Your task to perform on an android device: turn off priority inbox in the gmail app Image 0: 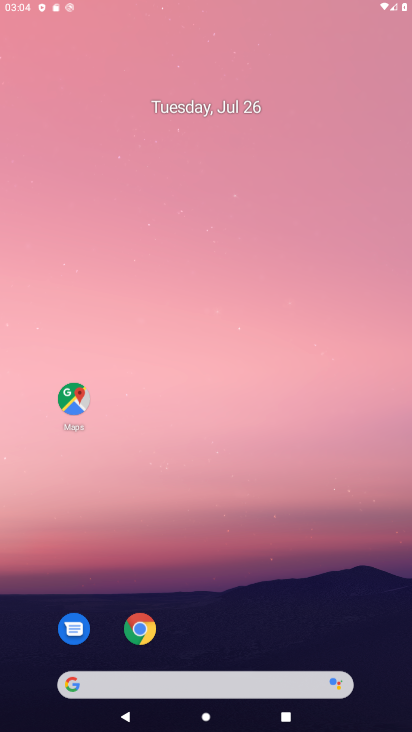
Step 0: press home button
Your task to perform on an android device: turn off priority inbox in the gmail app Image 1: 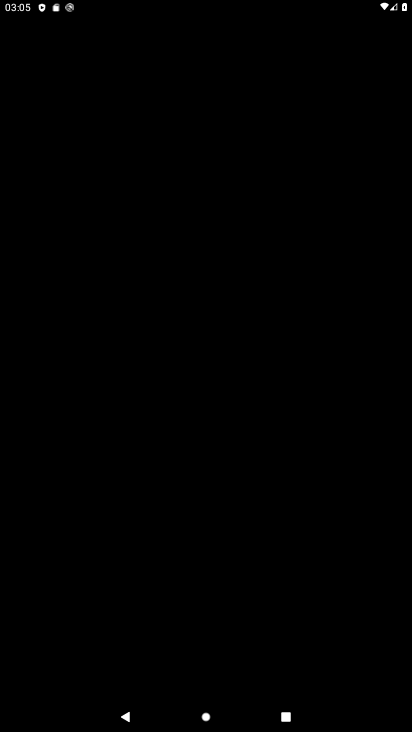
Step 1: press home button
Your task to perform on an android device: turn off priority inbox in the gmail app Image 2: 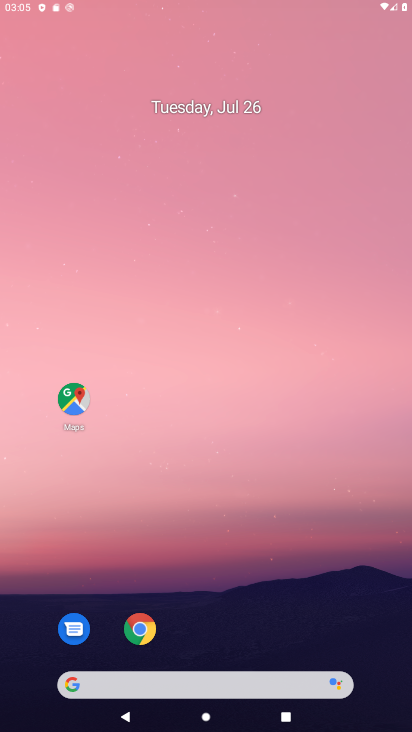
Step 2: press home button
Your task to perform on an android device: turn off priority inbox in the gmail app Image 3: 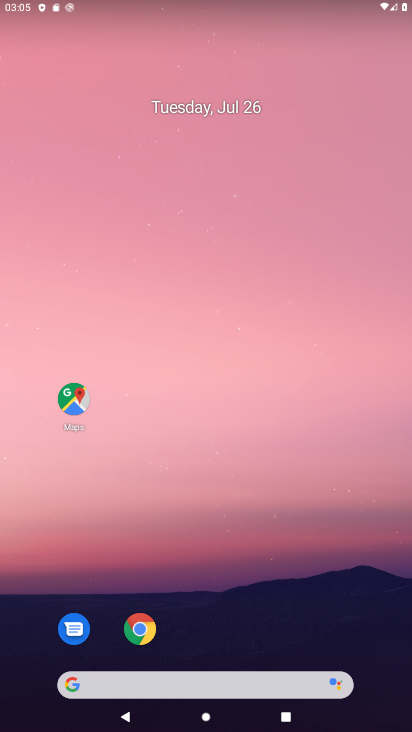
Step 3: press home button
Your task to perform on an android device: turn off priority inbox in the gmail app Image 4: 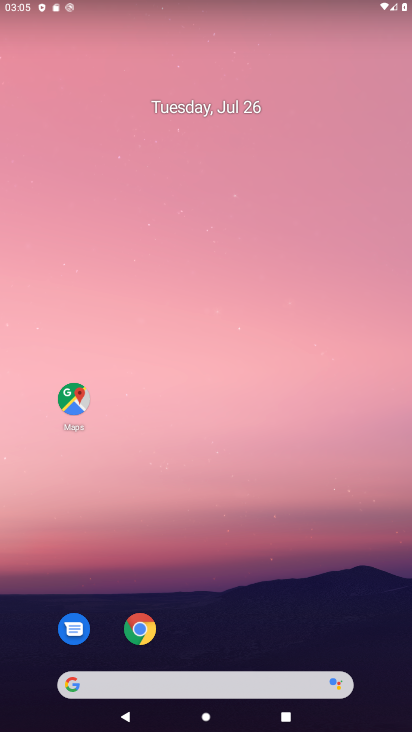
Step 4: press home button
Your task to perform on an android device: turn off priority inbox in the gmail app Image 5: 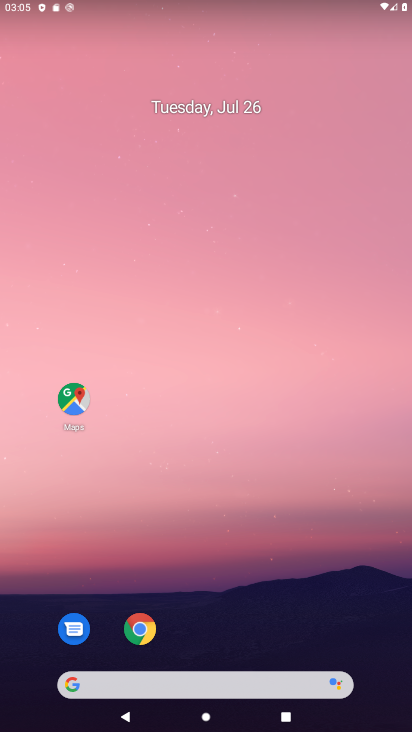
Step 5: drag from (226, 689) to (109, 26)
Your task to perform on an android device: turn off priority inbox in the gmail app Image 6: 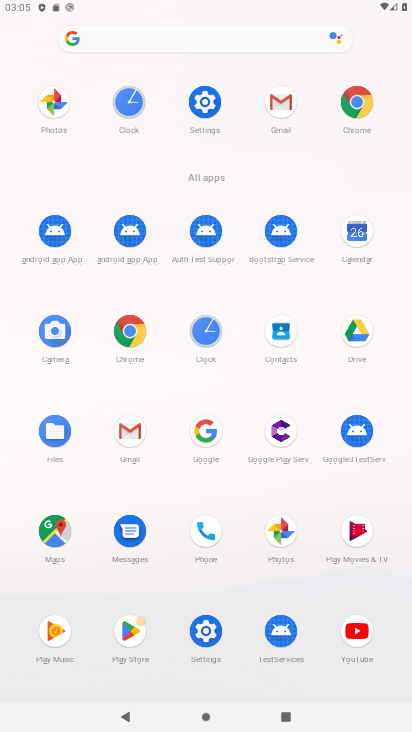
Step 6: click (266, 124)
Your task to perform on an android device: turn off priority inbox in the gmail app Image 7: 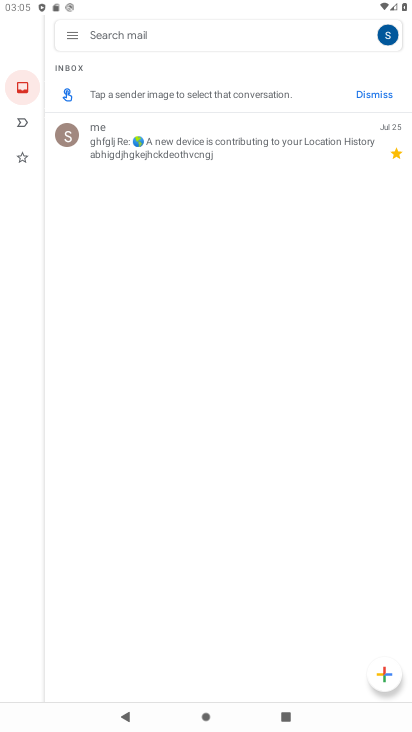
Step 7: click (67, 45)
Your task to perform on an android device: turn off priority inbox in the gmail app Image 8: 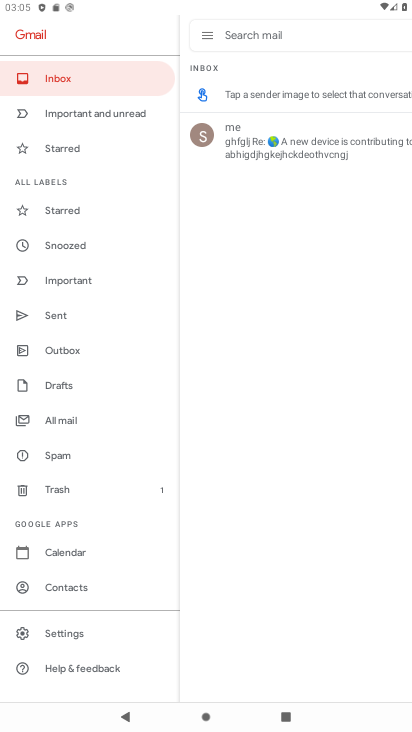
Step 8: click (65, 633)
Your task to perform on an android device: turn off priority inbox in the gmail app Image 9: 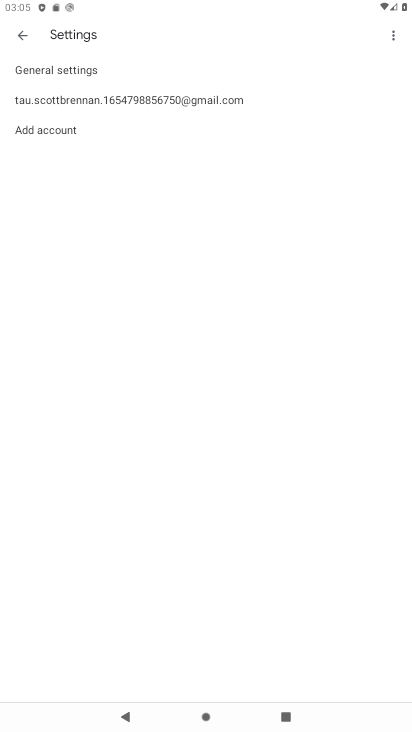
Step 9: click (49, 94)
Your task to perform on an android device: turn off priority inbox in the gmail app Image 10: 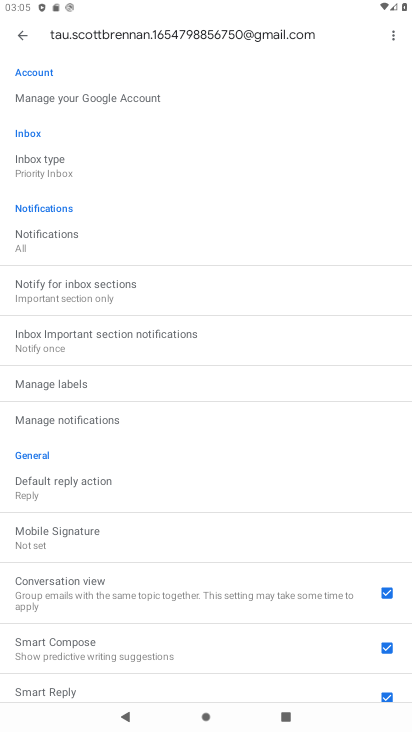
Step 10: click (37, 159)
Your task to perform on an android device: turn off priority inbox in the gmail app Image 11: 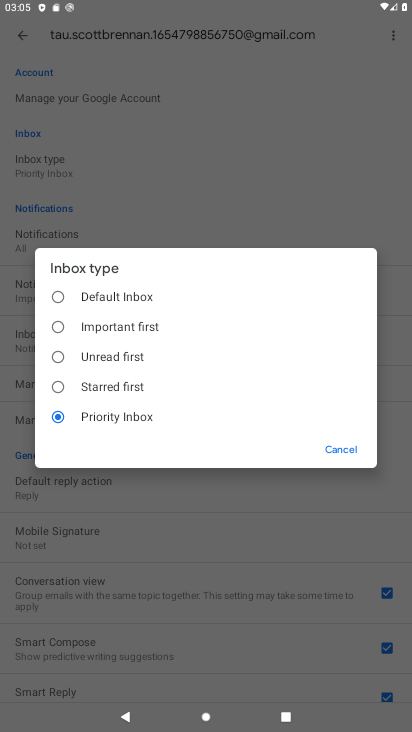
Step 11: click (79, 290)
Your task to perform on an android device: turn off priority inbox in the gmail app Image 12: 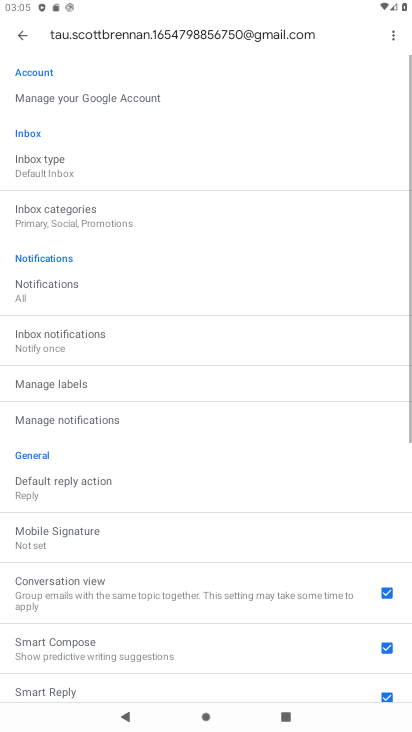
Step 12: task complete